Your task to perform on an android device: toggle pop-ups in chrome Image 0: 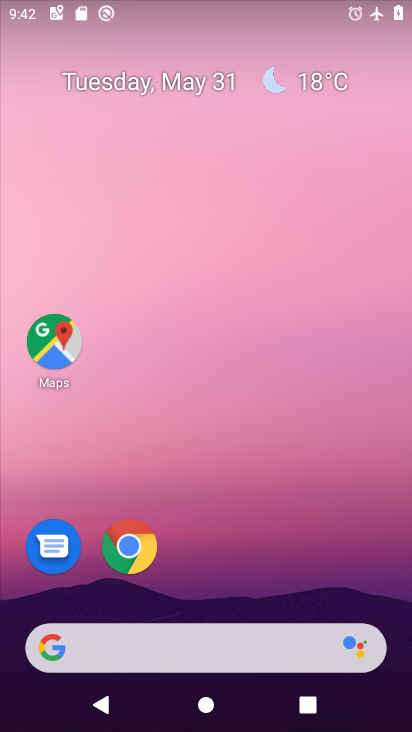
Step 0: click (125, 528)
Your task to perform on an android device: toggle pop-ups in chrome Image 1: 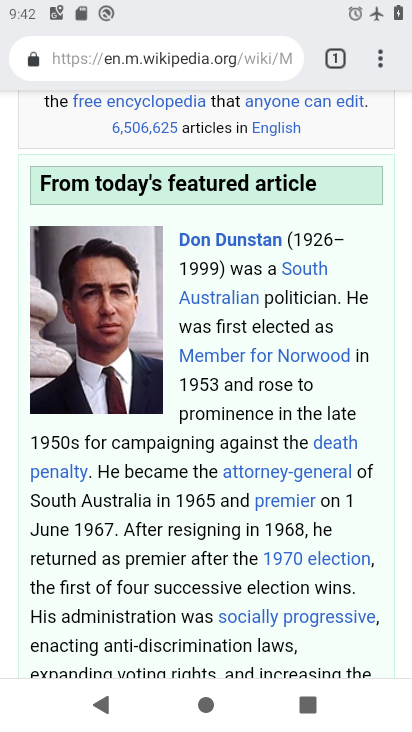
Step 1: click (379, 49)
Your task to perform on an android device: toggle pop-ups in chrome Image 2: 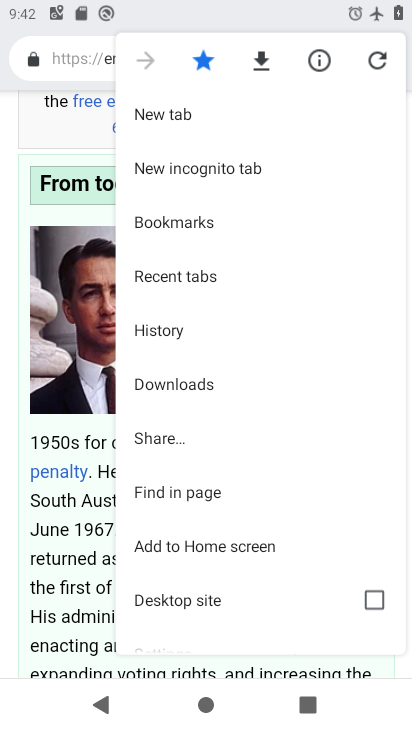
Step 2: drag from (181, 606) to (222, 303)
Your task to perform on an android device: toggle pop-ups in chrome Image 3: 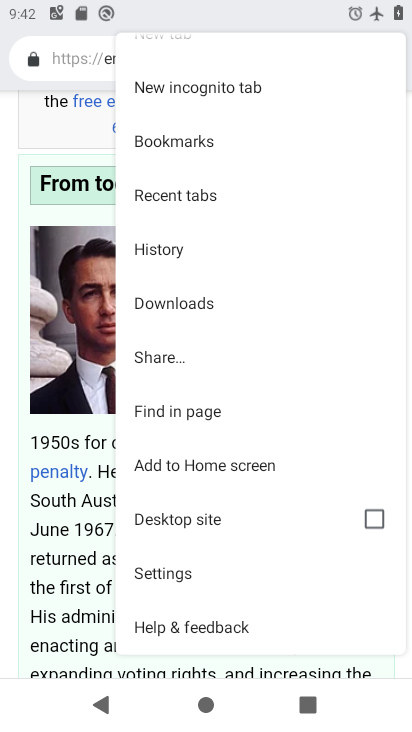
Step 3: click (186, 565)
Your task to perform on an android device: toggle pop-ups in chrome Image 4: 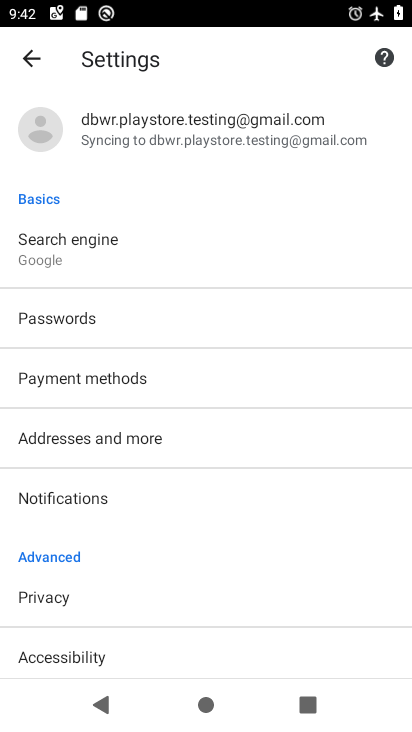
Step 4: drag from (123, 590) to (140, 374)
Your task to perform on an android device: toggle pop-ups in chrome Image 5: 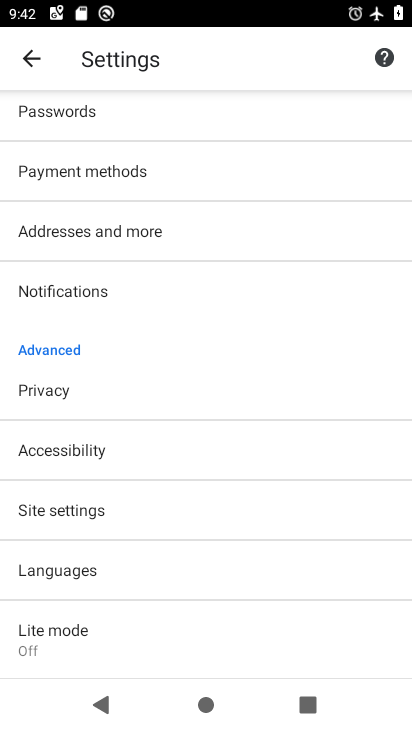
Step 5: click (102, 505)
Your task to perform on an android device: toggle pop-ups in chrome Image 6: 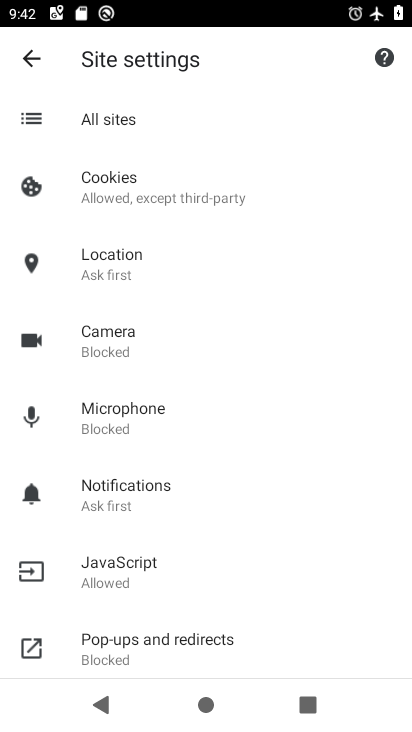
Step 6: click (113, 658)
Your task to perform on an android device: toggle pop-ups in chrome Image 7: 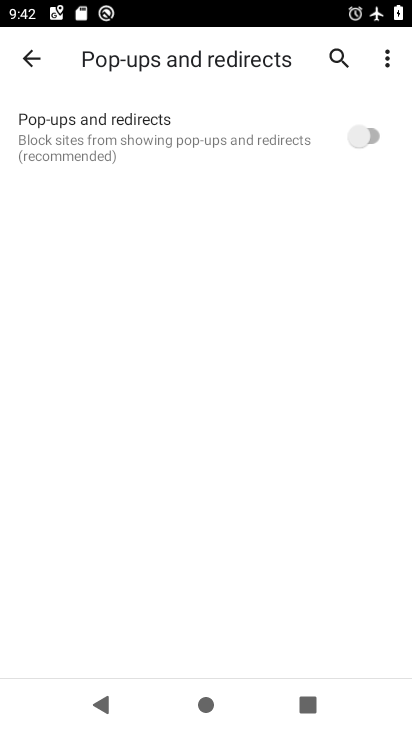
Step 7: click (374, 138)
Your task to perform on an android device: toggle pop-ups in chrome Image 8: 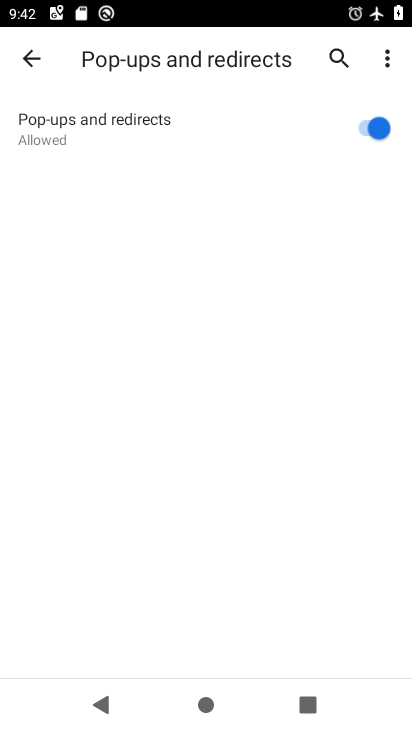
Step 8: task complete